Your task to perform on an android device: turn on airplane mode Image 0: 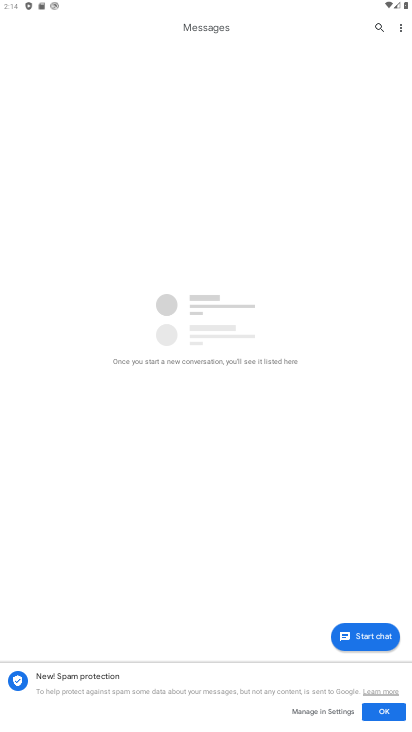
Step 0: press home button
Your task to perform on an android device: turn on airplane mode Image 1: 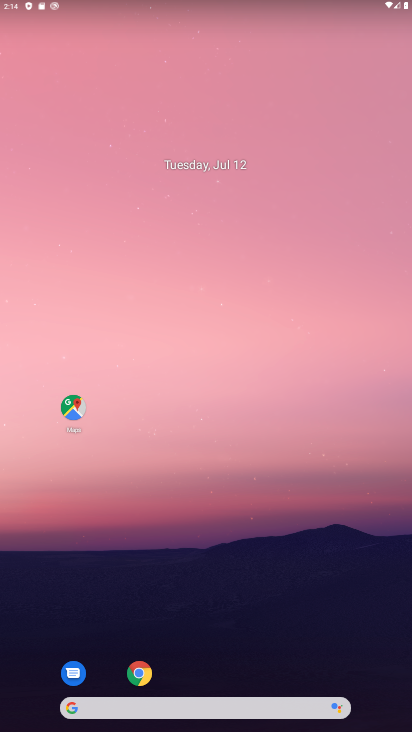
Step 1: drag from (194, 555) to (196, 177)
Your task to perform on an android device: turn on airplane mode Image 2: 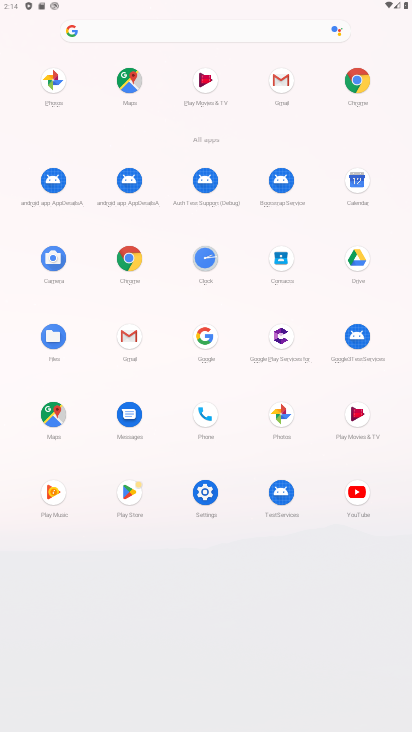
Step 2: click (207, 497)
Your task to perform on an android device: turn on airplane mode Image 3: 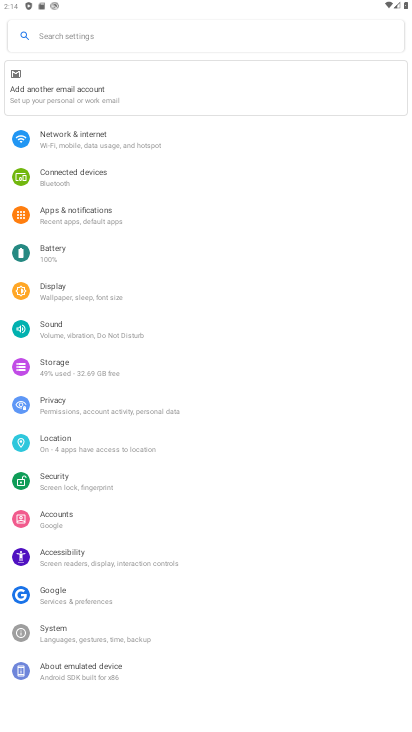
Step 3: click (113, 133)
Your task to perform on an android device: turn on airplane mode Image 4: 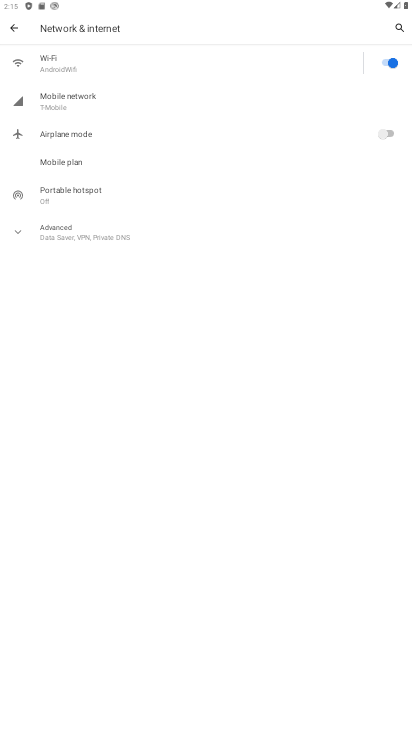
Step 4: click (387, 140)
Your task to perform on an android device: turn on airplane mode Image 5: 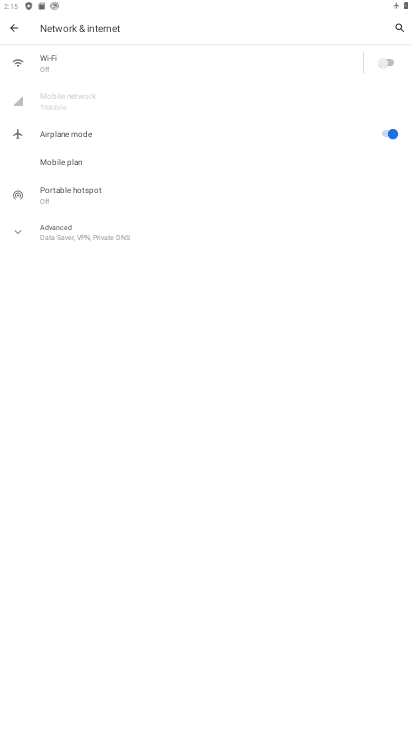
Step 5: task complete